Your task to perform on an android device: toggle show notifications on the lock screen Image 0: 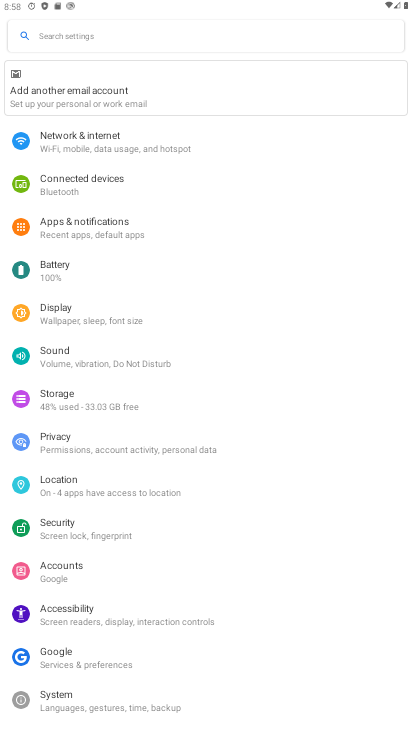
Step 0: press home button
Your task to perform on an android device: toggle show notifications on the lock screen Image 1: 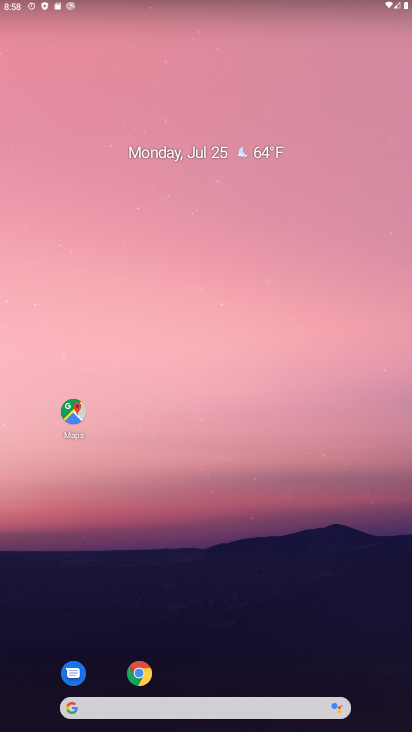
Step 1: drag from (231, 674) to (262, 127)
Your task to perform on an android device: toggle show notifications on the lock screen Image 2: 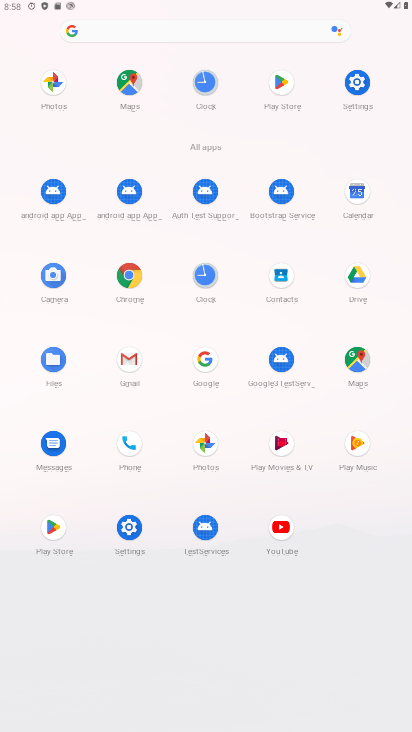
Step 2: click (357, 76)
Your task to perform on an android device: toggle show notifications on the lock screen Image 3: 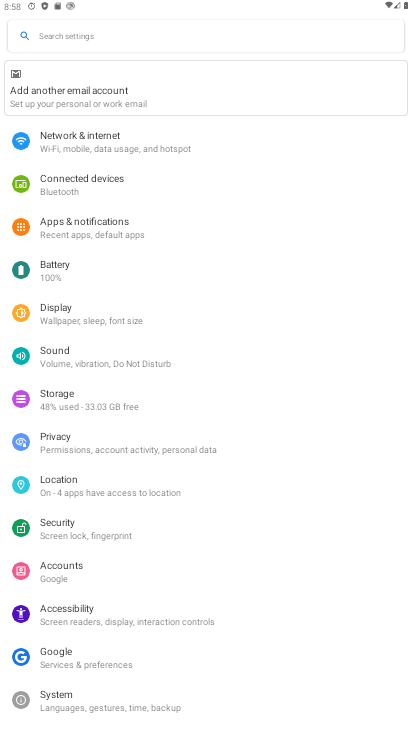
Step 3: click (148, 225)
Your task to perform on an android device: toggle show notifications on the lock screen Image 4: 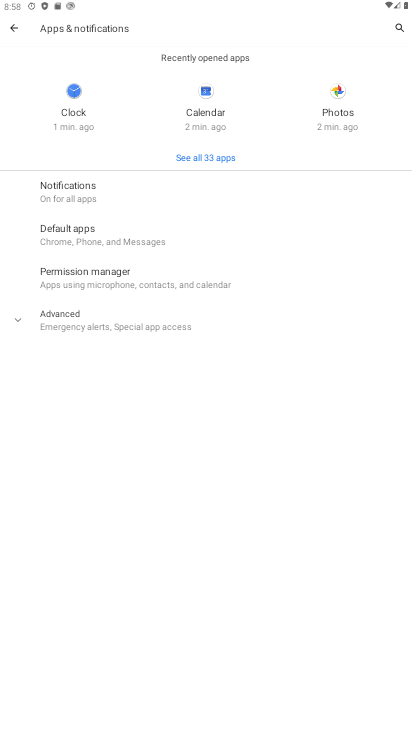
Step 4: click (110, 187)
Your task to perform on an android device: toggle show notifications on the lock screen Image 5: 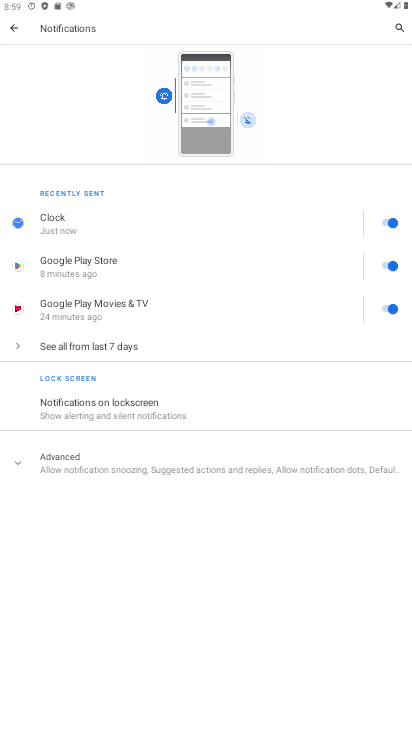
Step 5: click (176, 400)
Your task to perform on an android device: toggle show notifications on the lock screen Image 6: 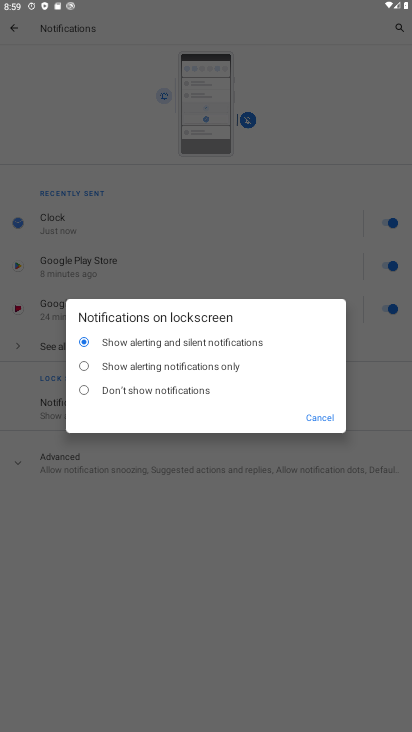
Step 6: click (83, 364)
Your task to perform on an android device: toggle show notifications on the lock screen Image 7: 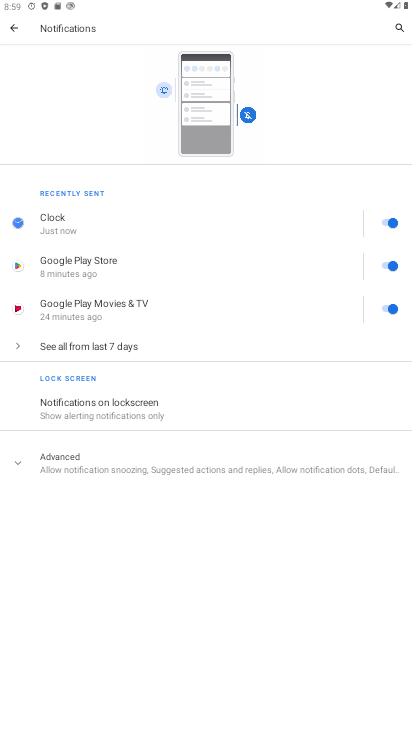
Step 7: task complete